Your task to perform on an android device: turn off airplane mode Image 0: 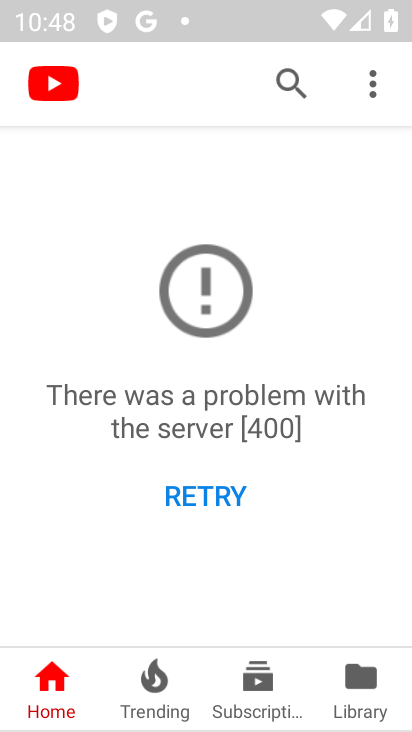
Step 0: press home button
Your task to perform on an android device: turn off airplane mode Image 1: 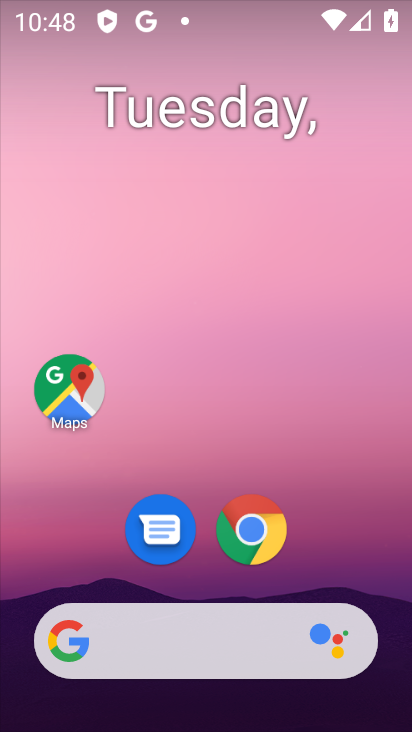
Step 1: drag from (195, 16) to (169, 624)
Your task to perform on an android device: turn off airplane mode Image 2: 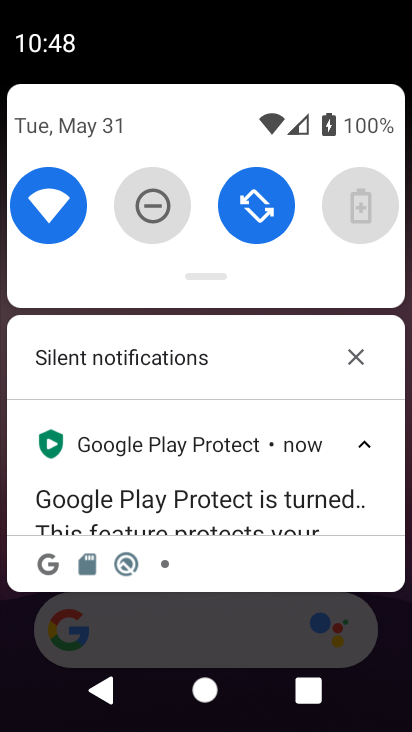
Step 2: drag from (225, 280) to (195, 731)
Your task to perform on an android device: turn off airplane mode Image 3: 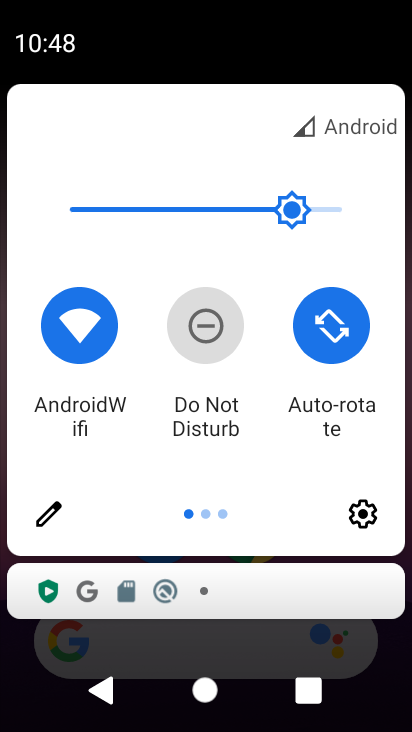
Step 3: click (41, 518)
Your task to perform on an android device: turn off airplane mode Image 4: 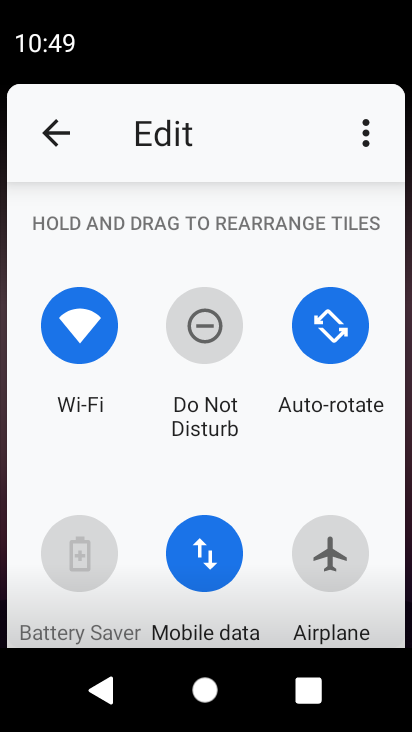
Step 4: task complete